Your task to perform on an android device: turn on bluetooth scan Image 0: 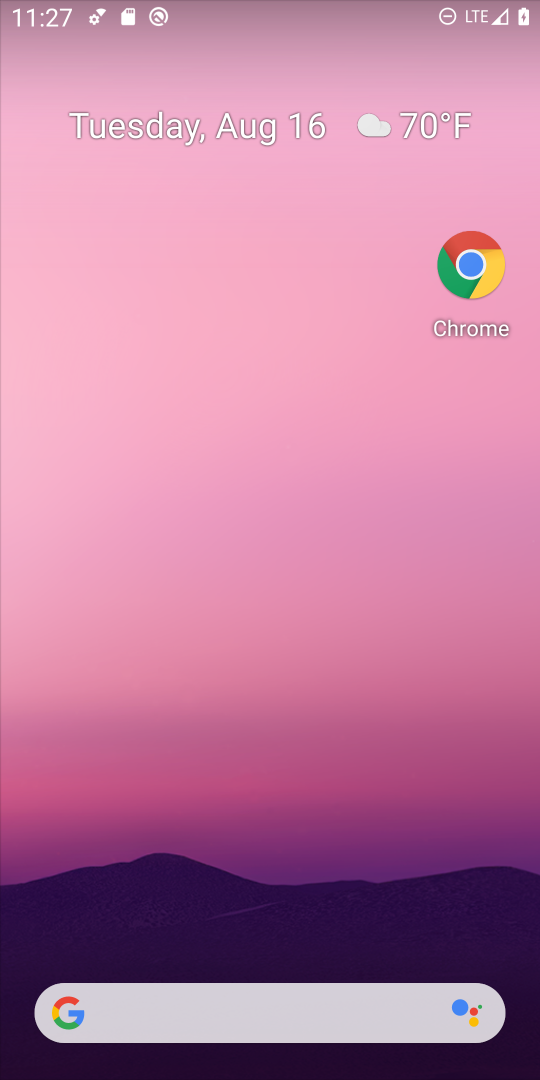
Step 0: drag from (319, 1014) to (375, 243)
Your task to perform on an android device: turn on bluetooth scan Image 1: 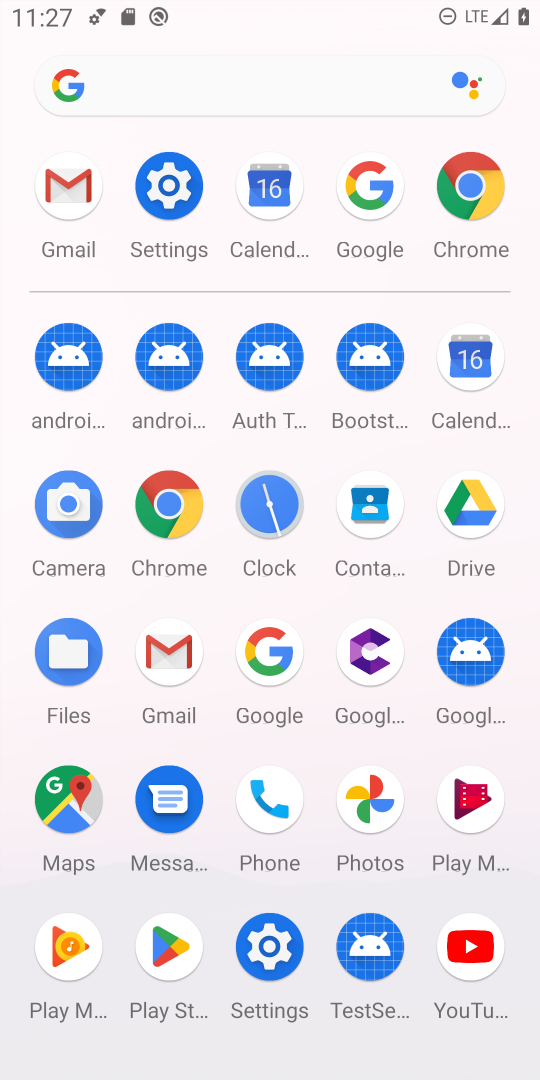
Step 1: click (193, 198)
Your task to perform on an android device: turn on bluetooth scan Image 2: 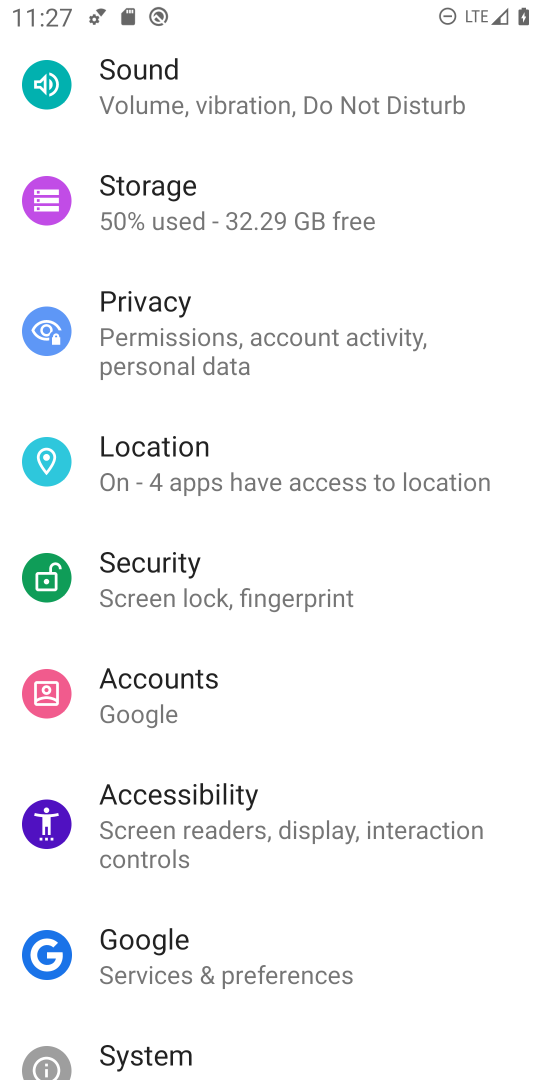
Step 2: drag from (217, 338) to (207, 984)
Your task to perform on an android device: turn on bluetooth scan Image 3: 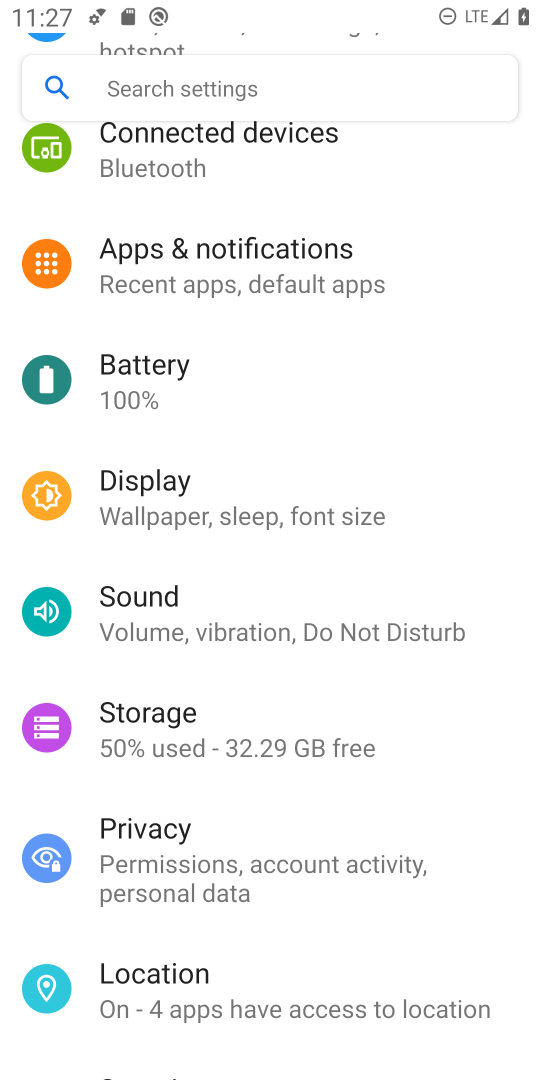
Step 3: click (280, 146)
Your task to perform on an android device: turn on bluetooth scan Image 4: 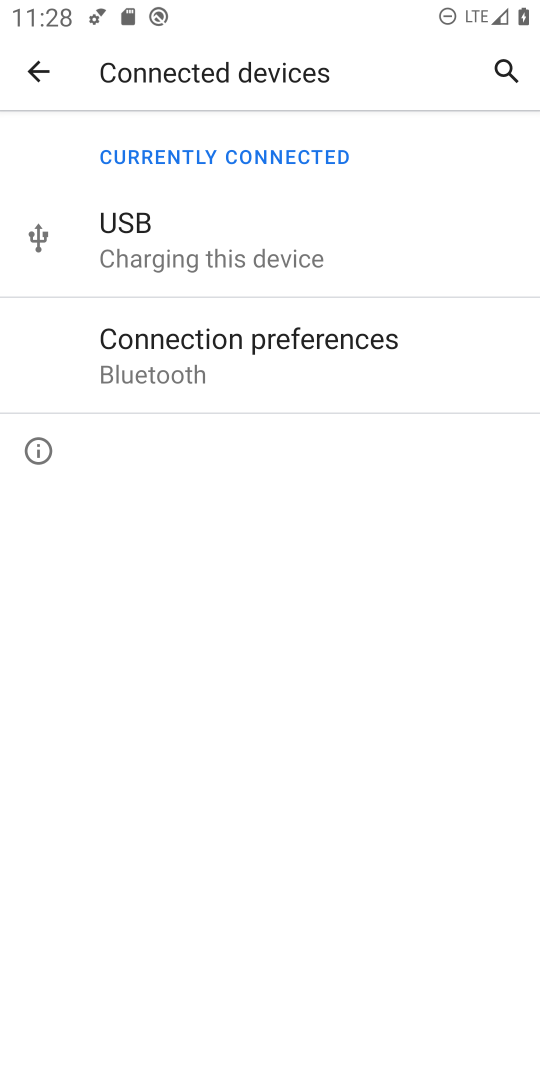
Step 4: click (206, 356)
Your task to perform on an android device: turn on bluetooth scan Image 5: 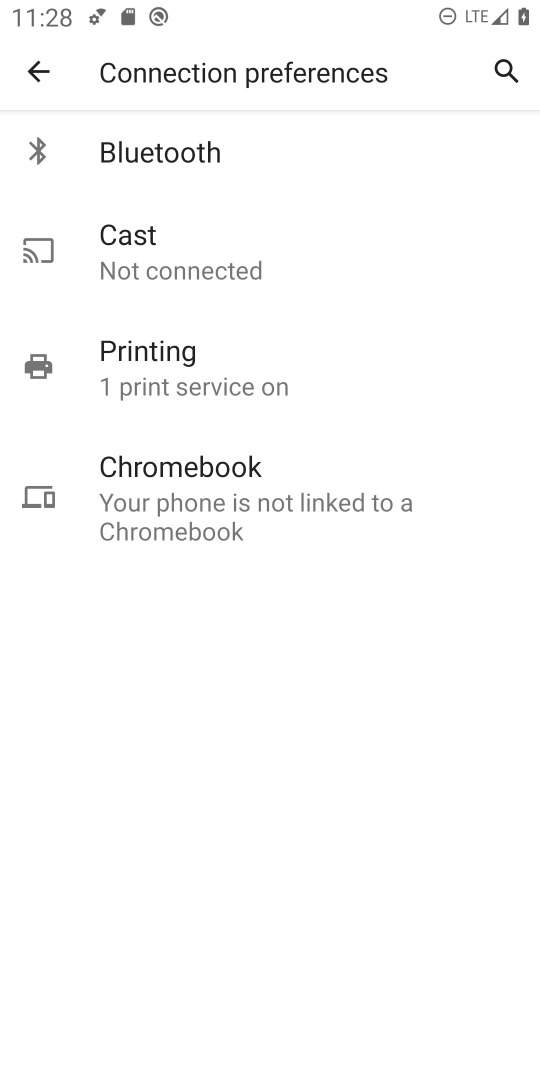
Step 5: click (176, 156)
Your task to perform on an android device: turn on bluetooth scan Image 6: 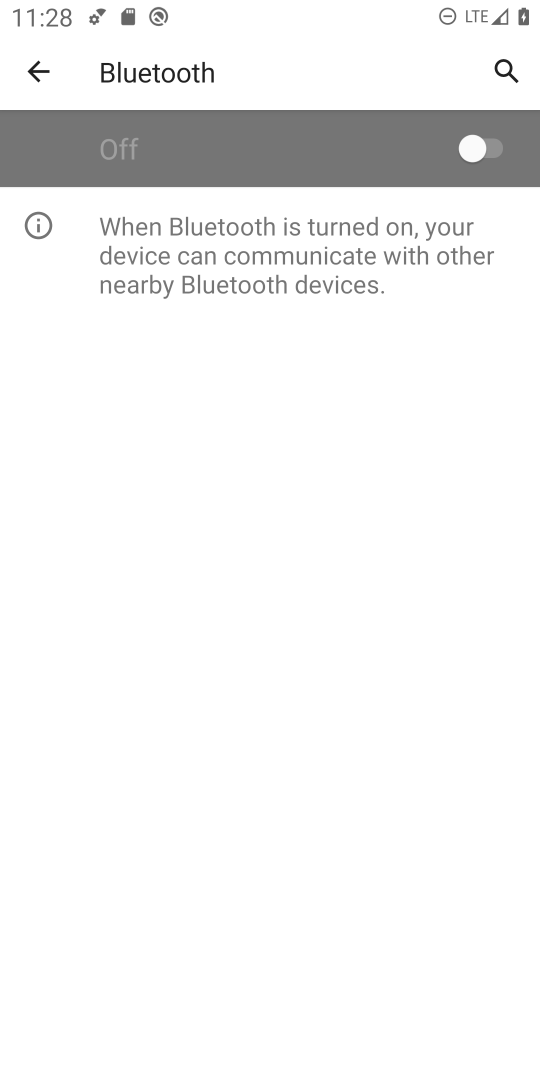
Step 6: click (474, 148)
Your task to perform on an android device: turn on bluetooth scan Image 7: 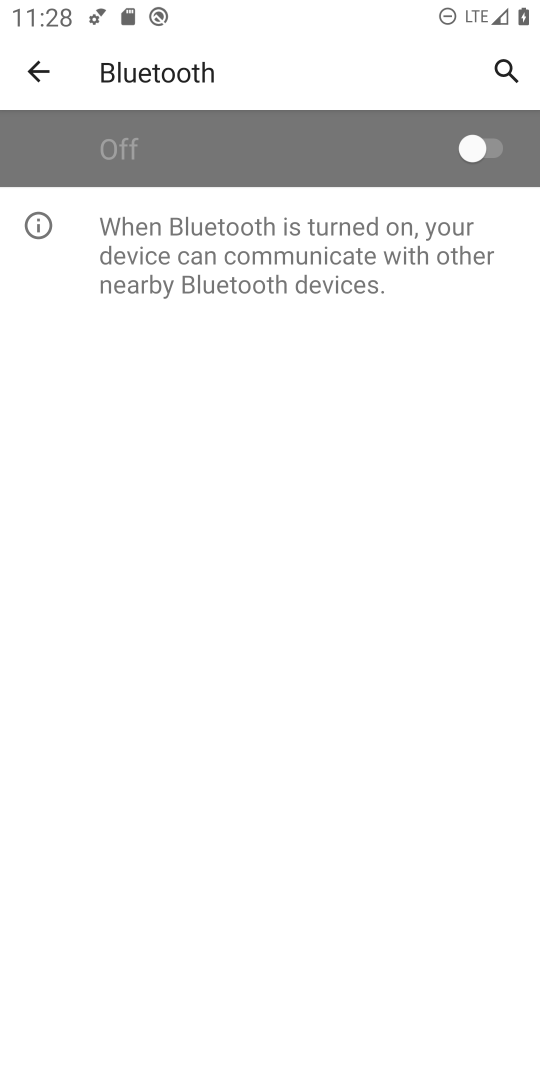
Step 7: click (474, 148)
Your task to perform on an android device: turn on bluetooth scan Image 8: 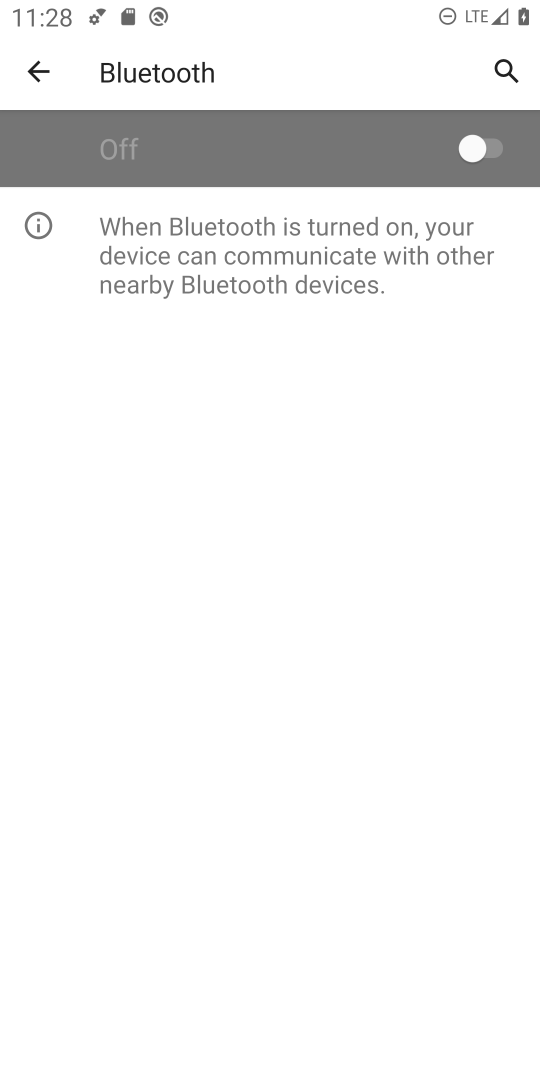
Step 8: task complete